Your task to perform on an android device: find photos in the google photos app Image 0: 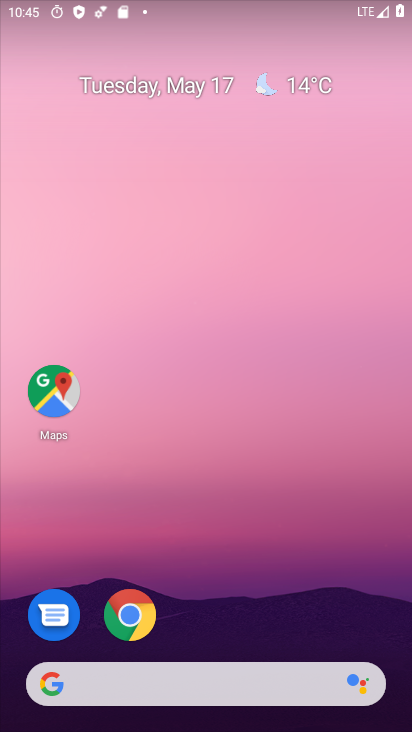
Step 0: drag from (226, 600) to (331, 190)
Your task to perform on an android device: find photos in the google photos app Image 1: 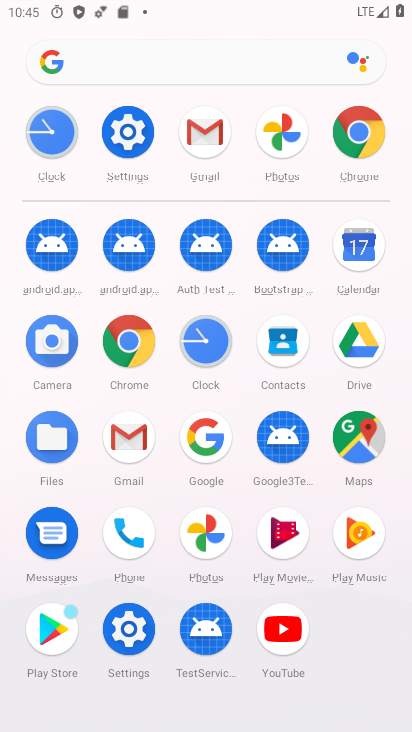
Step 1: click (209, 530)
Your task to perform on an android device: find photos in the google photos app Image 2: 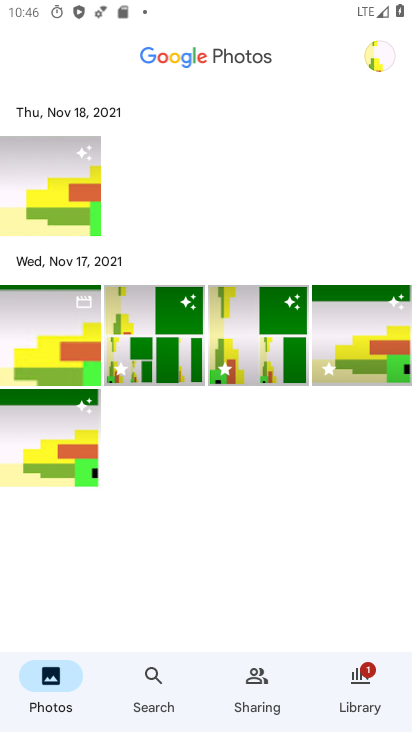
Step 2: task complete